Your task to perform on an android device: open app "Truecaller" (install if not already installed) Image 0: 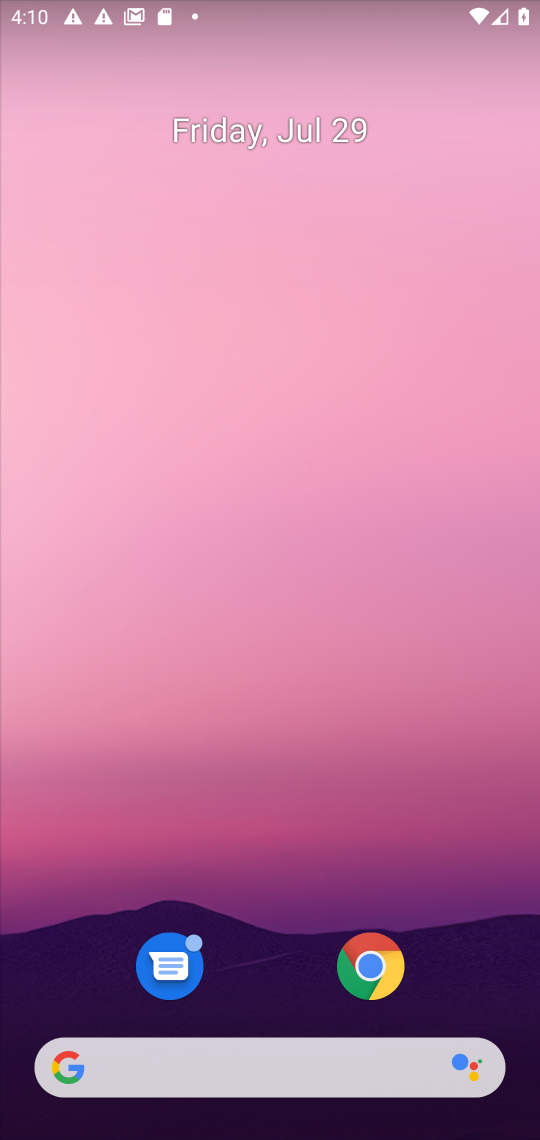
Step 0: drag from (253, 988) to (379, 0)
Your task to perform on an android device: open app "Truecaller" (install if not already installed) Image 1: 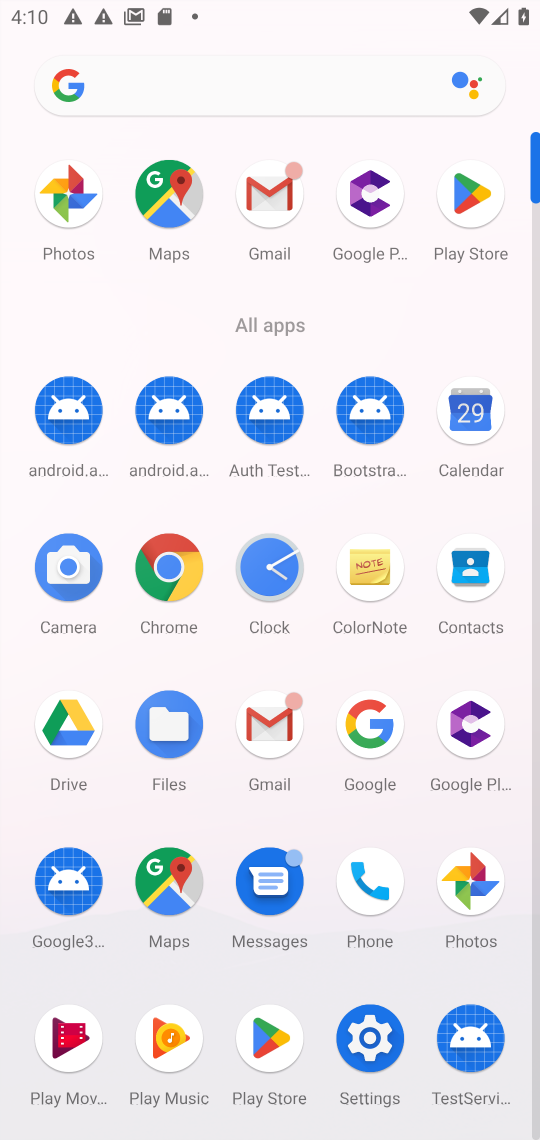
Step 1: click (282, 1030)
Your task to perform on an android device: open app "Truecaller" (install if not already installed) Image 2: 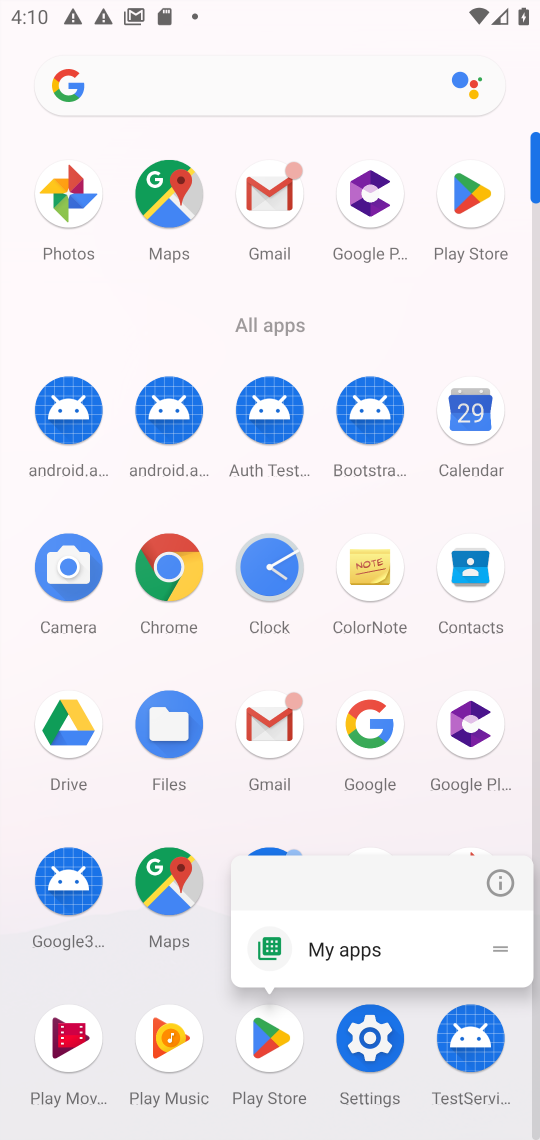
Step 2: click (468, 206)
Your task to perform on an android device: open app "Truecaller" (install if not already installed) Image 3: 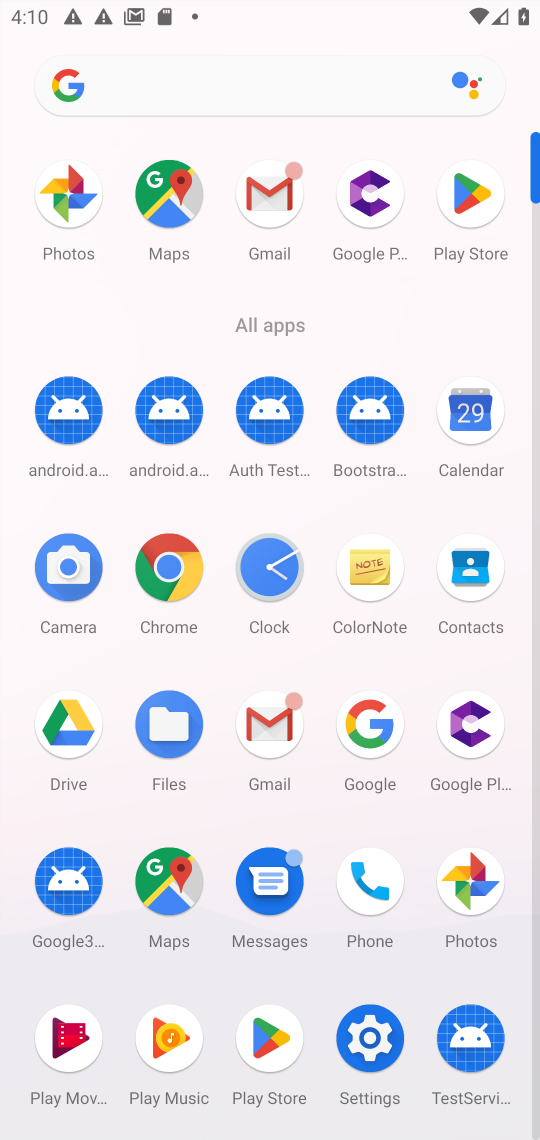
Step 3: click (465, 219)
Your task to perform on an android device: open app "Truecaller" (install if not already installed) Image 4: 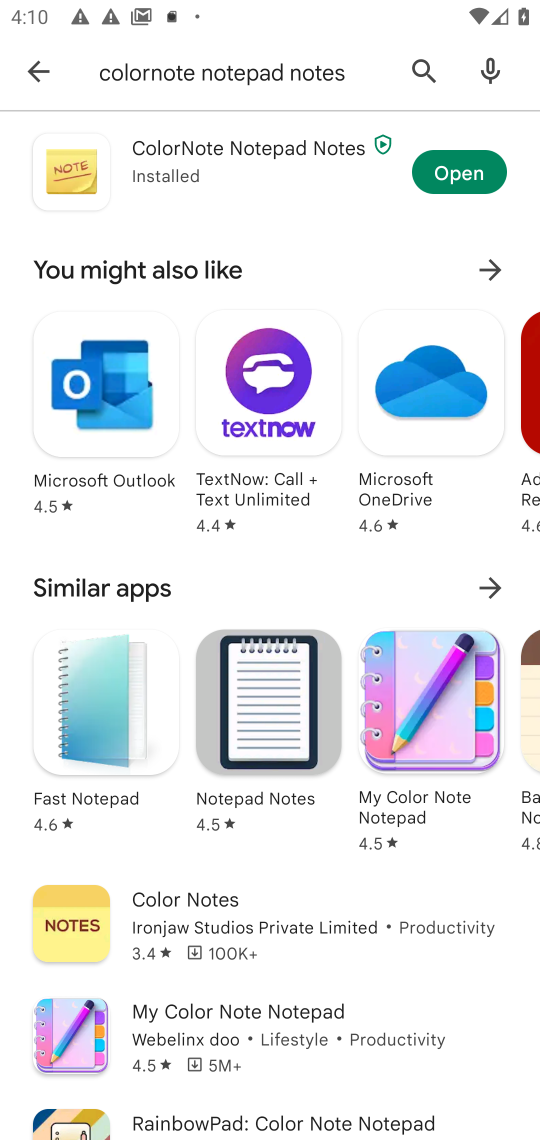
Step 4: click (241, 83)
Your task to perform on an android device: open app "Truecaller" (install if not already installed) Image 5: 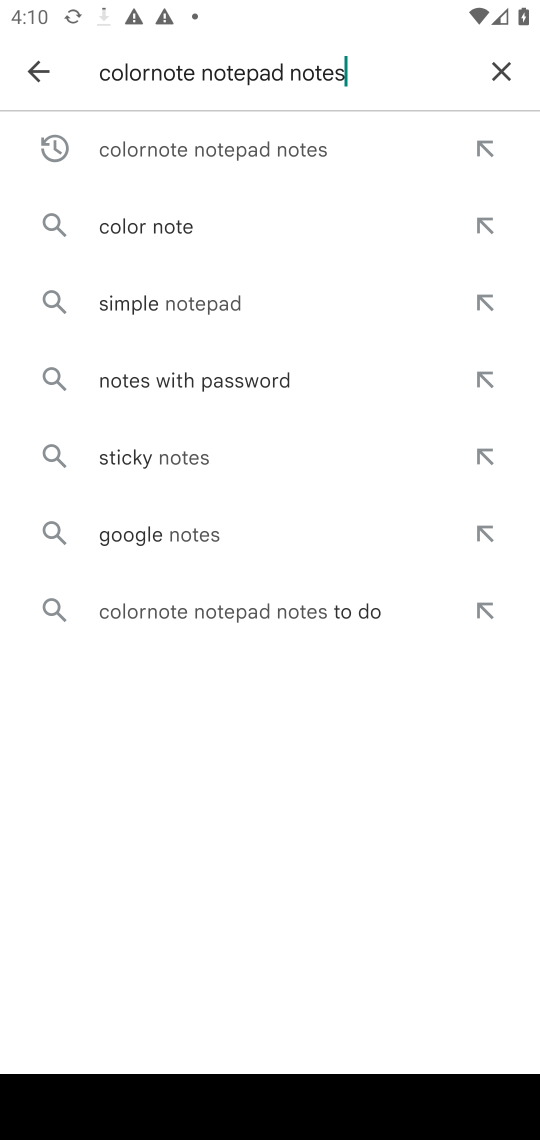
Step 5: click (492, 66)
Your task to perform on an android device: open app "Truecaller" (install if not already installed) Image 6: 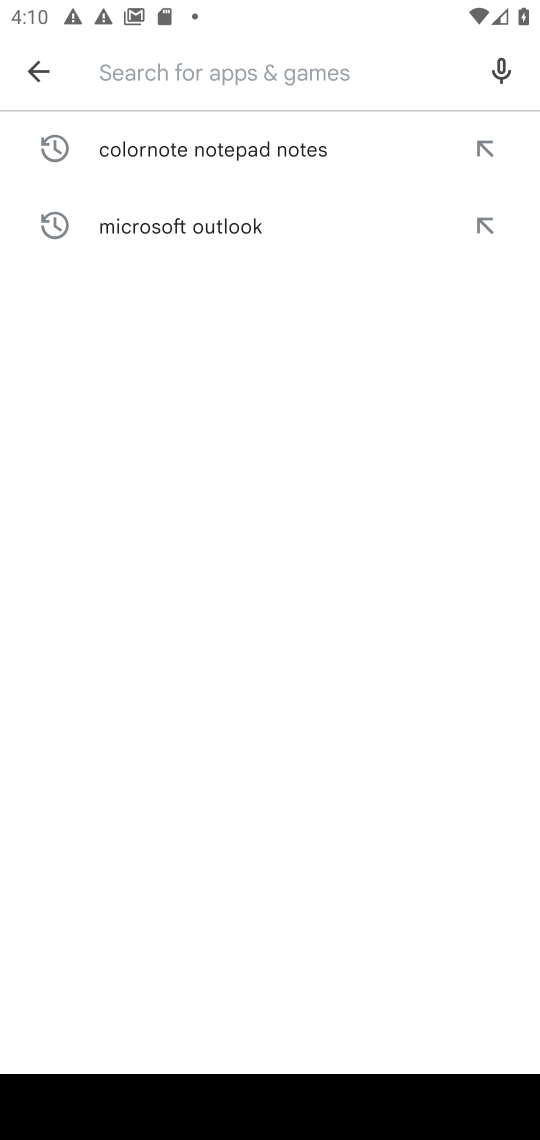
Step 6: type "Truecaller"
Your task to perform on an android device: open app "Truecaller" (install if not already installed) Image 7: 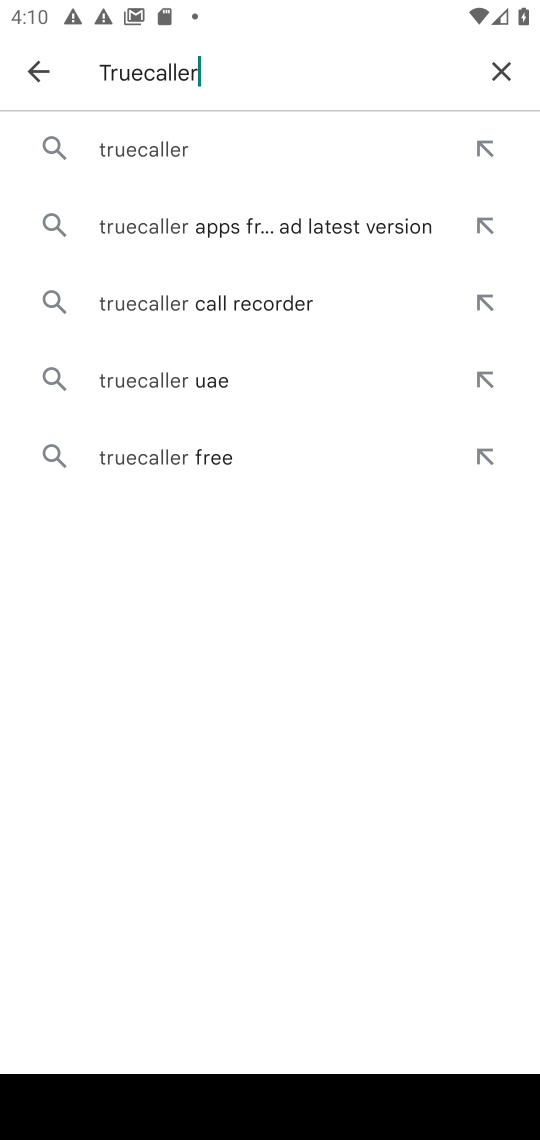
Step 7: click (179, 149)
Your task to perform on an android device: open app "Truecaller" (install if not already installed) Image 8: 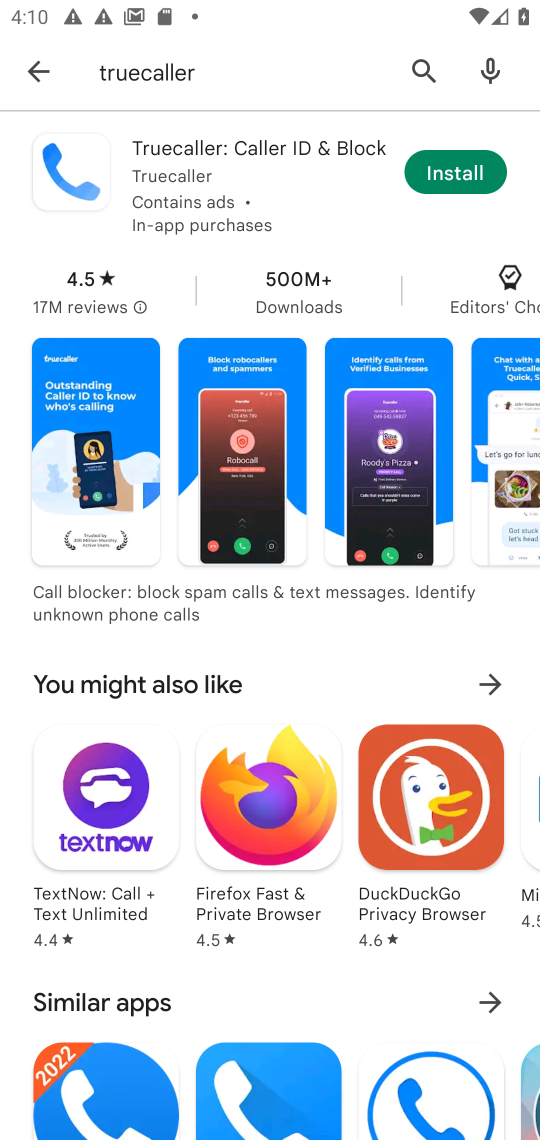
Step 8: click (435, 173)
Your task to perform on an android device: open app "Truecaller" (install if not already installed) Image 9: 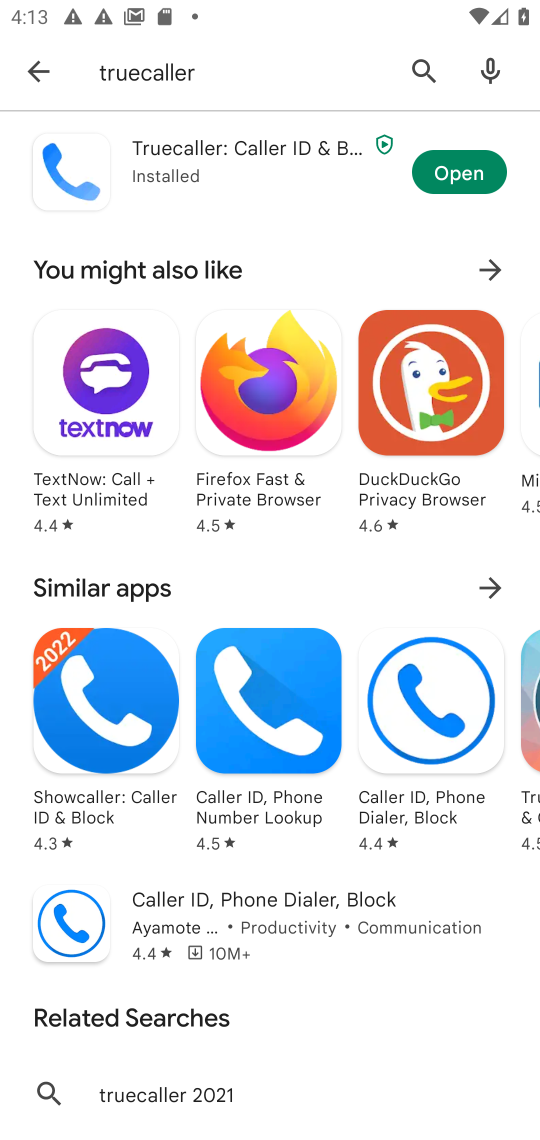
Step 9: click (454, 157)
Your task to perform on an android device: open app "Truecaller" (install if not already installed) Image 10: 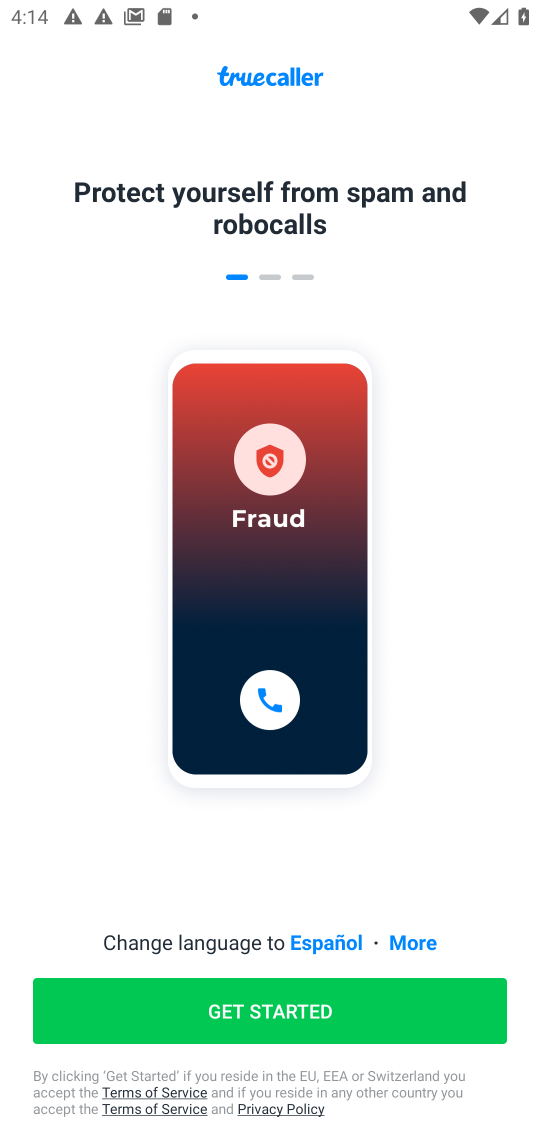
Step 10: click (310, 1010)
Your task to perform on an android device: open app "Truecaller" (install if not already installed) Image 11: 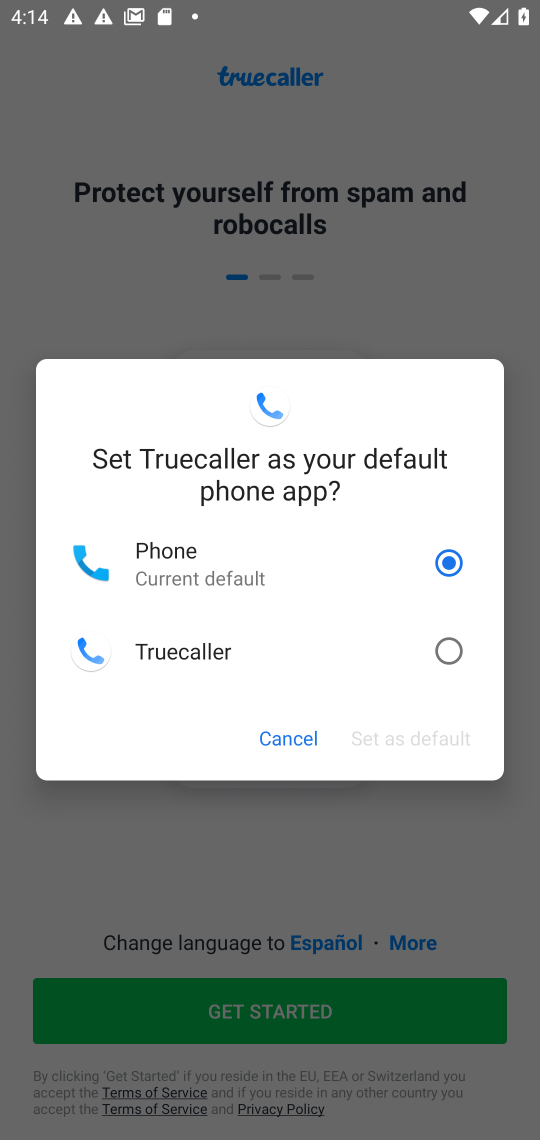
Step 11: click (435, 641)
Your task to perform on an android device: open app "Truecaller" (install if not already installed) Image 12: 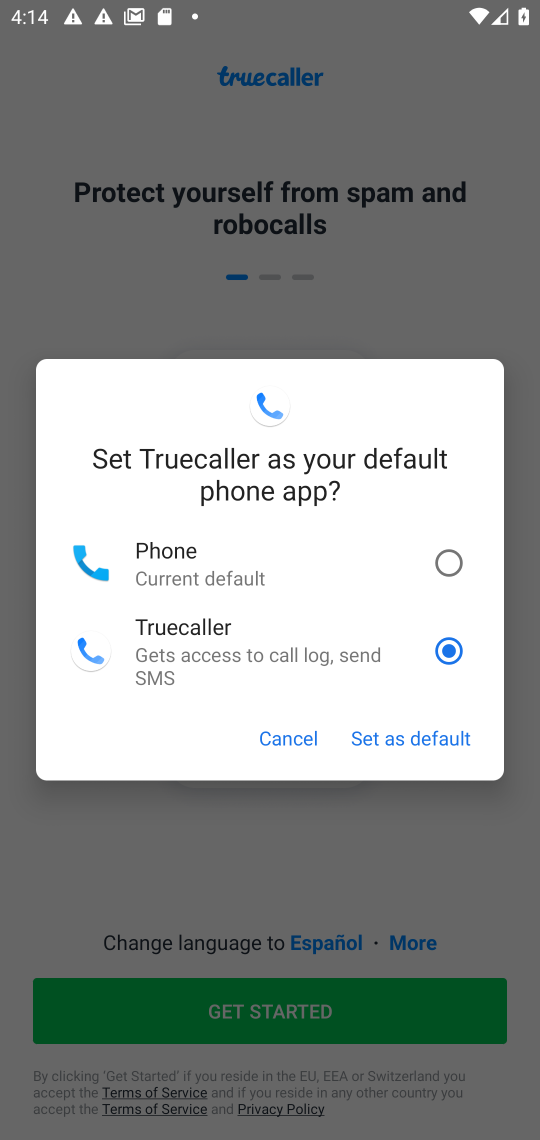
Step 12: click (433, 748)
Your task to perform on an android device: open app "Truecaller" (install if not already installed) Image 13: 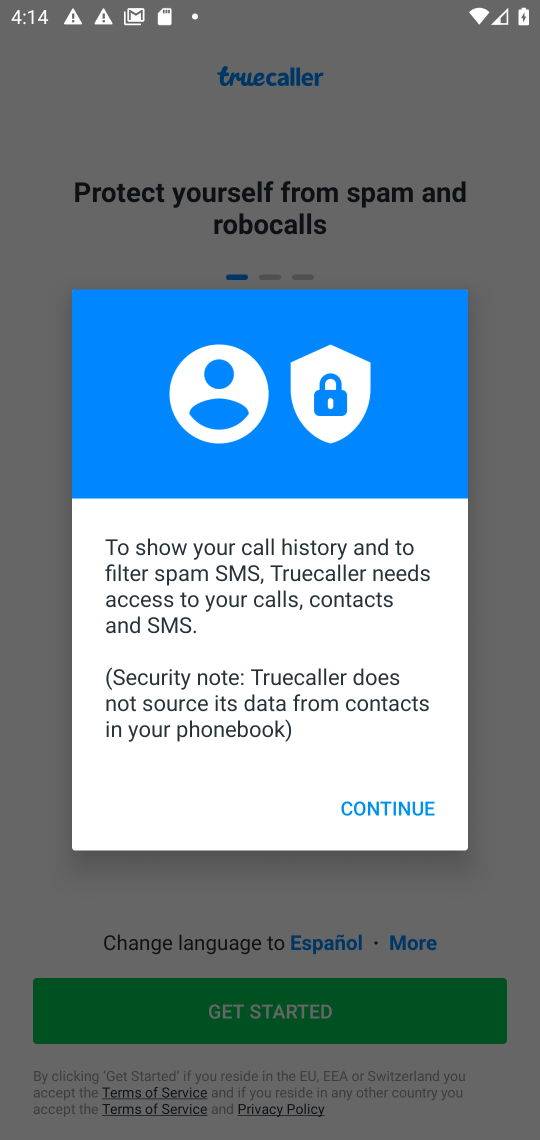
Step 13: click (407, 808)
Your task to perform on an android device: open app "Truecaller" (install if not already installed) Image 14: 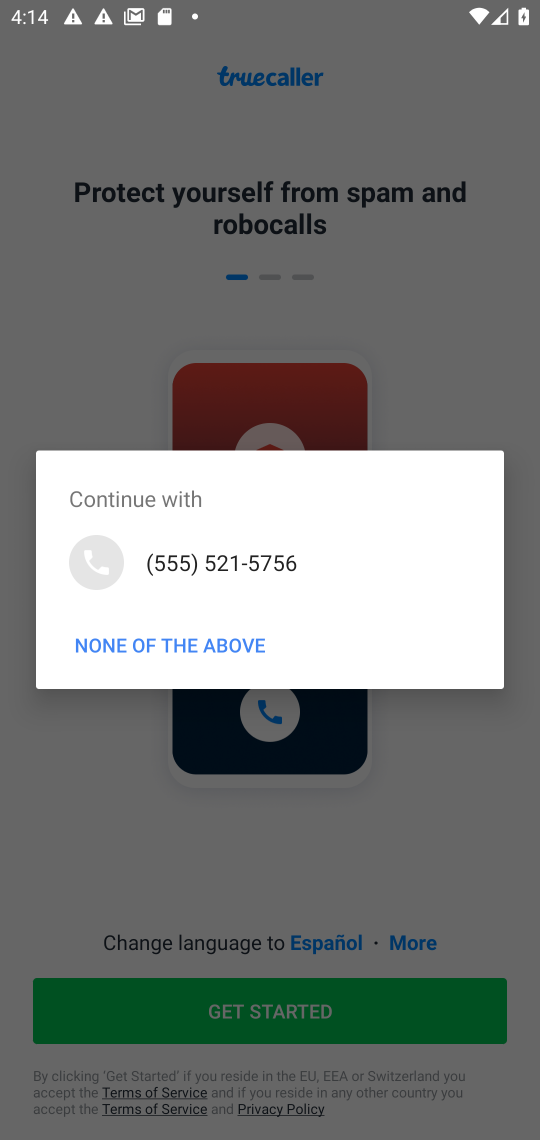
Step 14: click (231, 563)
Your task to perform on an android device: open app "Truecaller" (install if not already installed) Image 15: 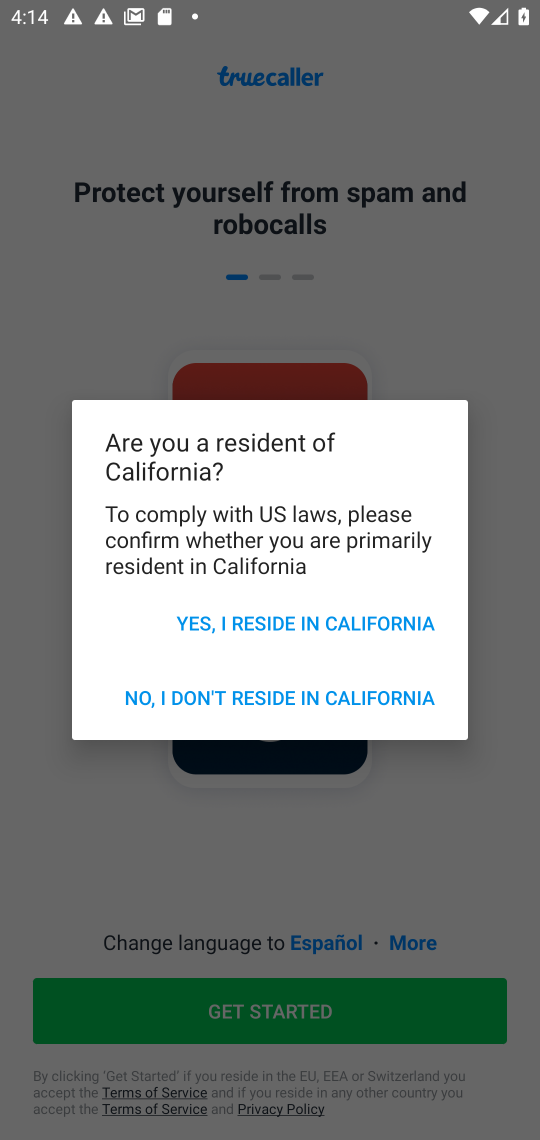
Step 15: click (320, 989)
Your task to perform on an android device: open app "Truecaller" (install if not already installed) Image 16: 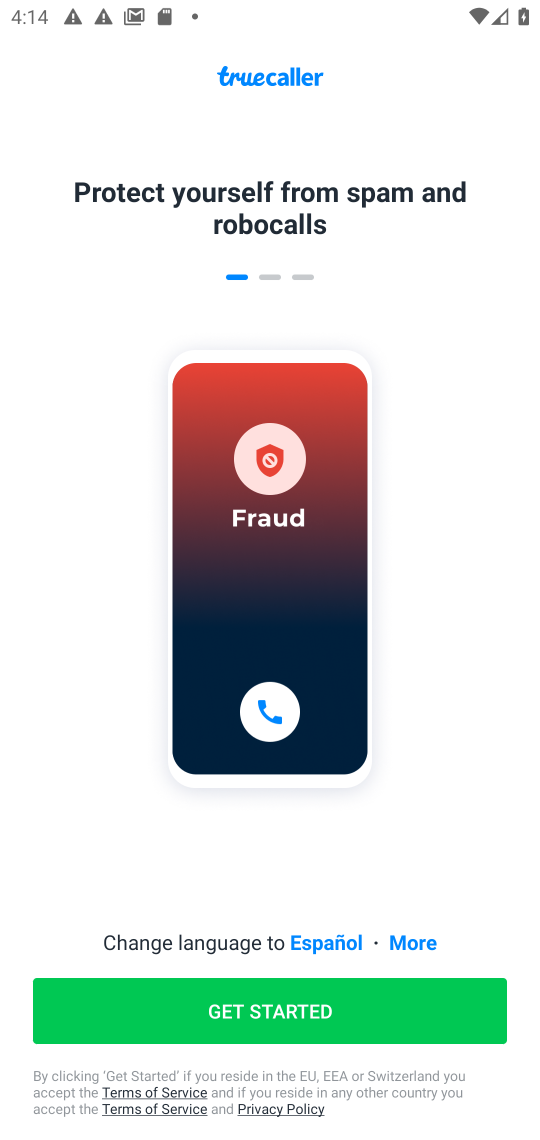
Step 16: click (275, 1024)
Your task to perform on an android device: open app "Truecaller" (install if not already installed) Image 17: 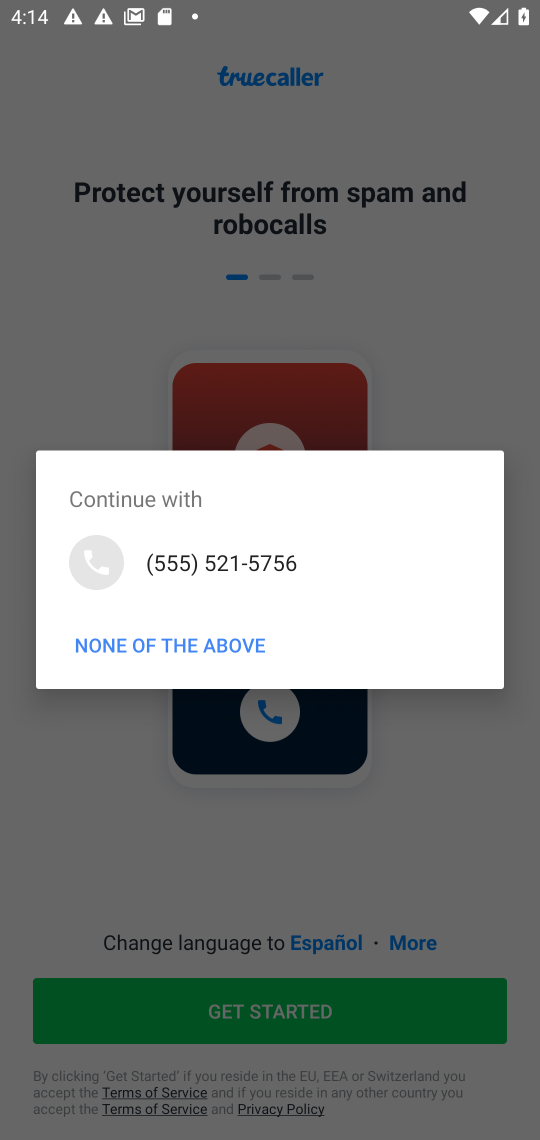
Step 17: click (257, 556)
Your task to perform on an android device: open app "Truecaller" (install if not already installed) Image 18: 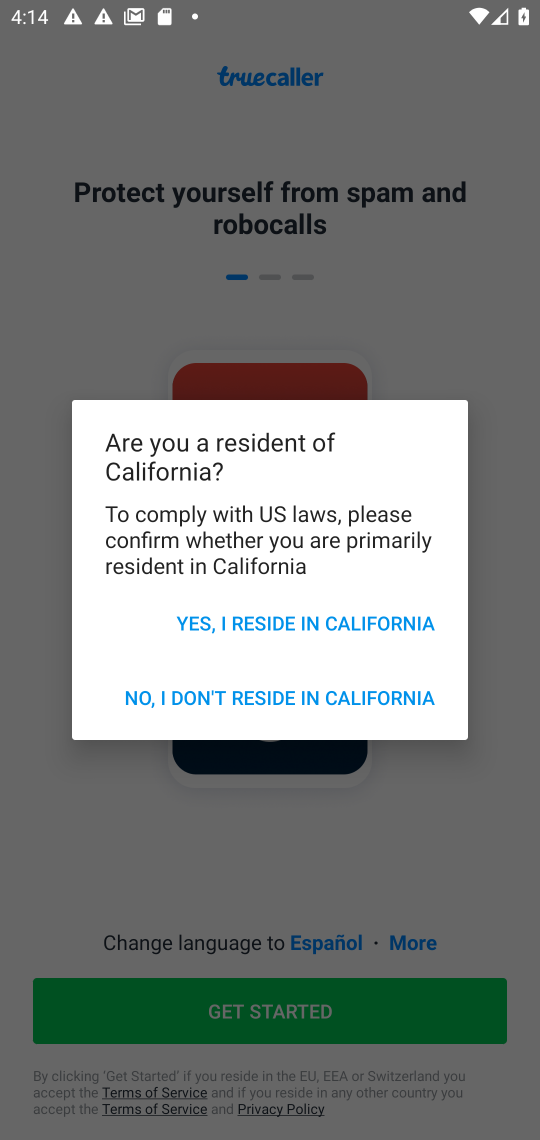
Step 18: click (339, 630)
Your task to perform on an android device: open app "Truecaller" (install if not already installed) Image 19: 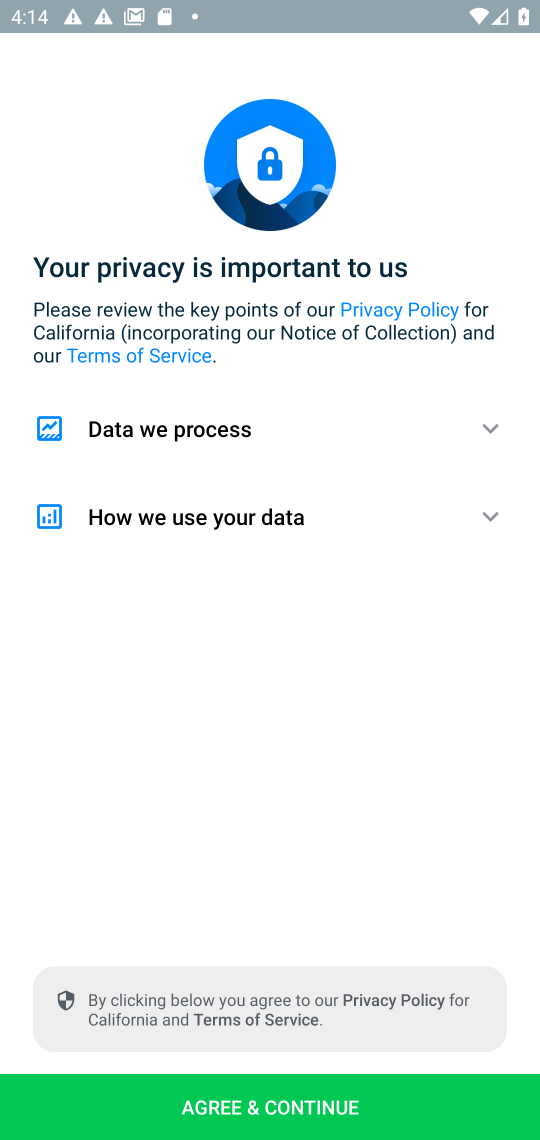
Step 19: click (245, 1107)
Your task to perform on an android device: open app "Truecaller" (install if not already installed) Image 20: 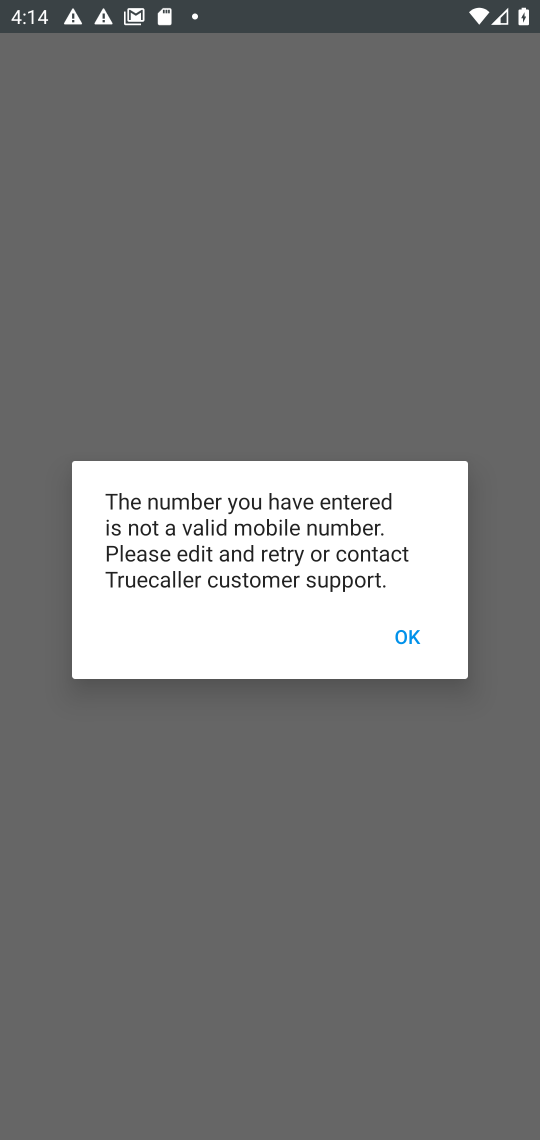
Step 20: click (424, 642)
Your task to perform on an android device: open app "Truecaller" (install if not already installed) Image 21: 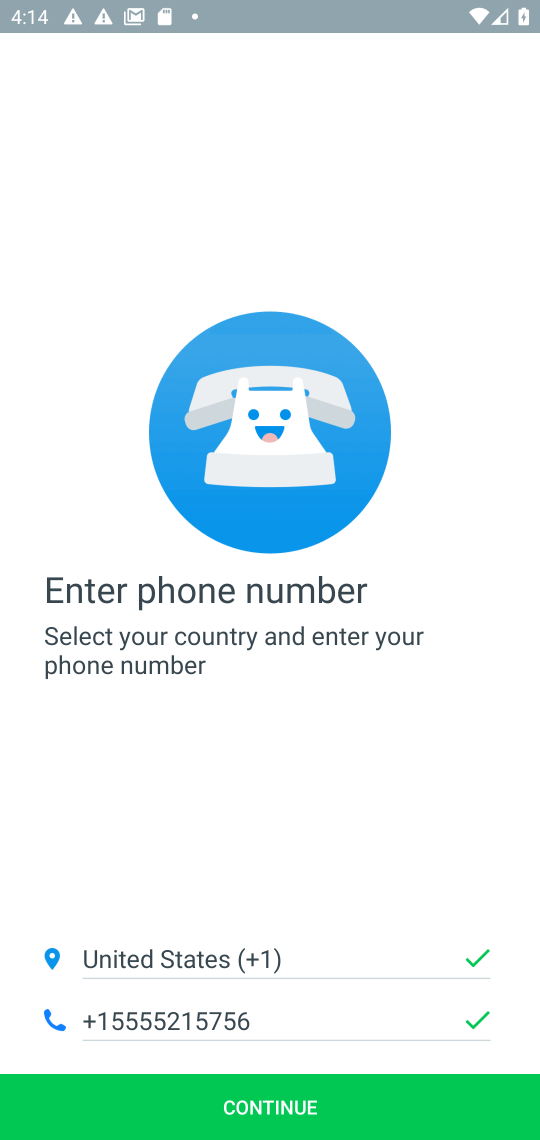
Step 21: click (397, 1128)
Your task to perform on an android device: open app "Truecaller" (install if not already installed) Image 22: 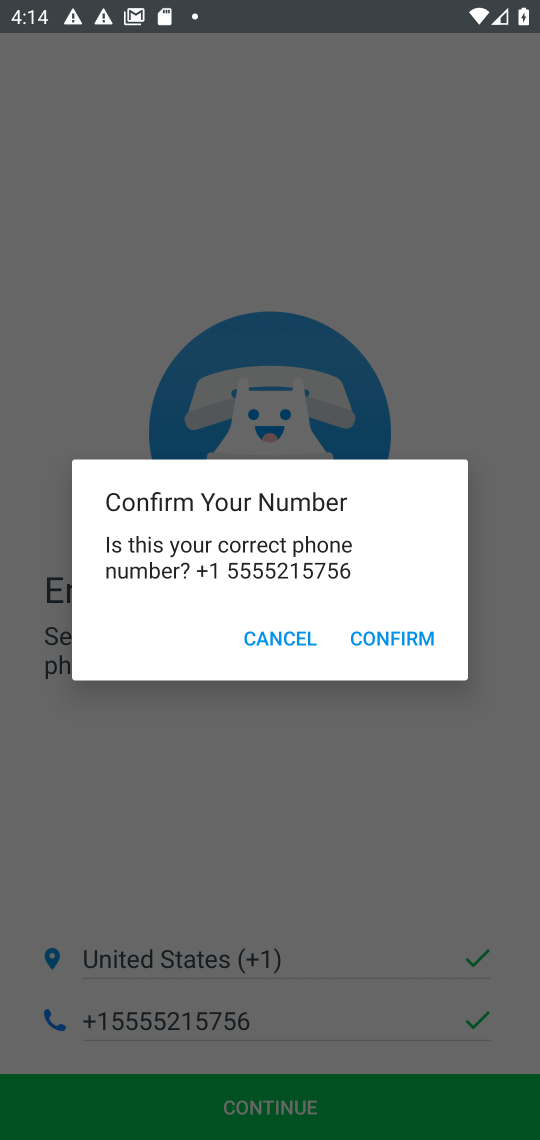
Step 22: click (281, 646)
Your task to perform on an android device: open app "Truecaller" (install if not already installed) Image 23: 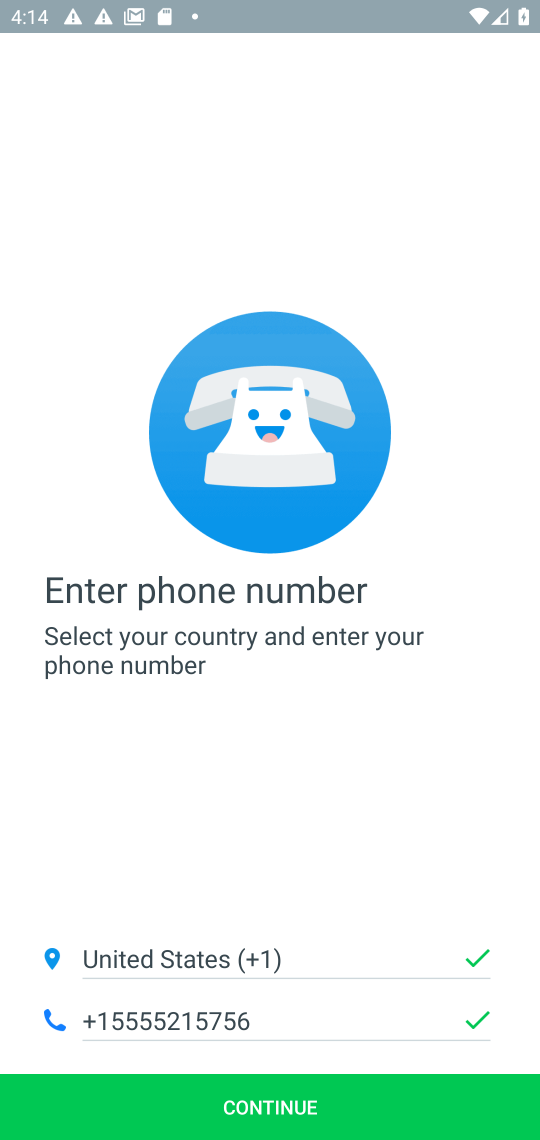
Step 23: task complete